Your task to perform on an android device: toggle translation in the chrome app Image 0: 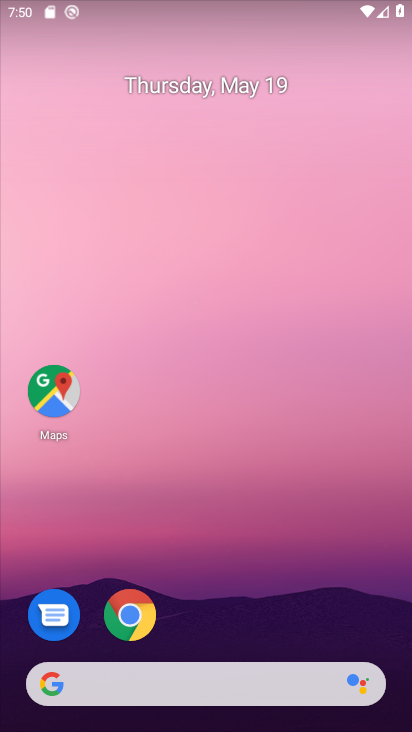
Step 0: drag from (235, 605) to (143, 83)
Your task to perform on an android device: toggle translation in the chrome app Image 1: 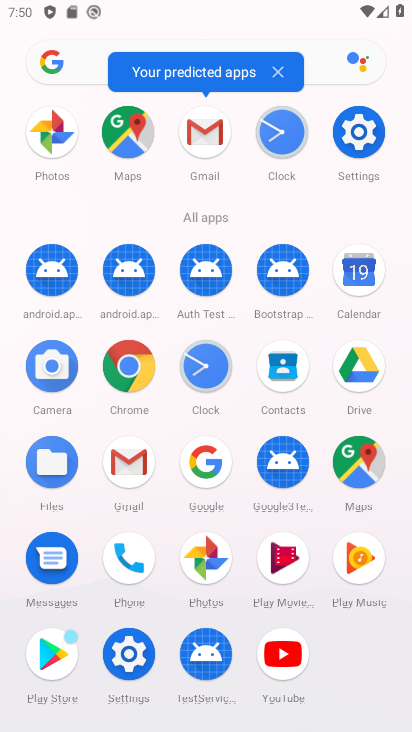
Step 1: click (131, 385)
Your task to perform on an android device: toggle translation in the chrome app Image 2: 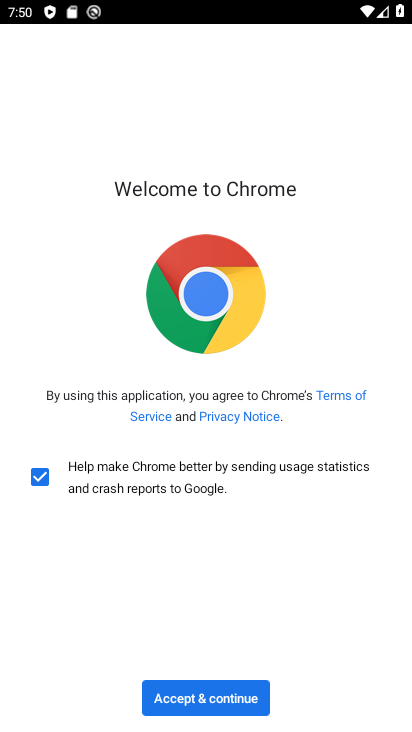
Step 2: click (205, 694)
Your task to perform on an android device: toggle translation in the chrome app Image 3: 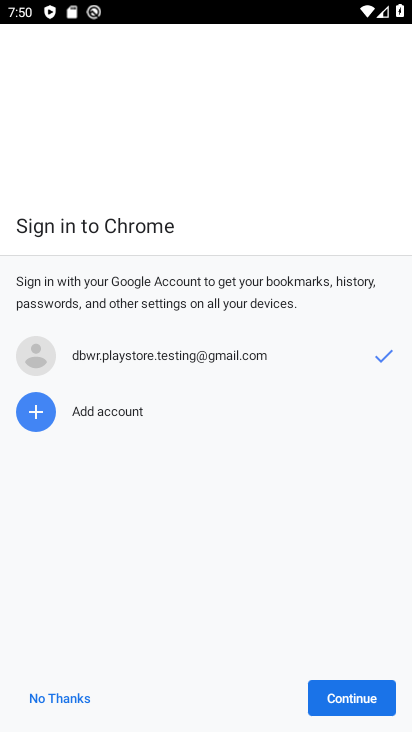
Step 3: click (68, 693)
Your task to perform on an android device: toggle translation in the chrome app Image 4: 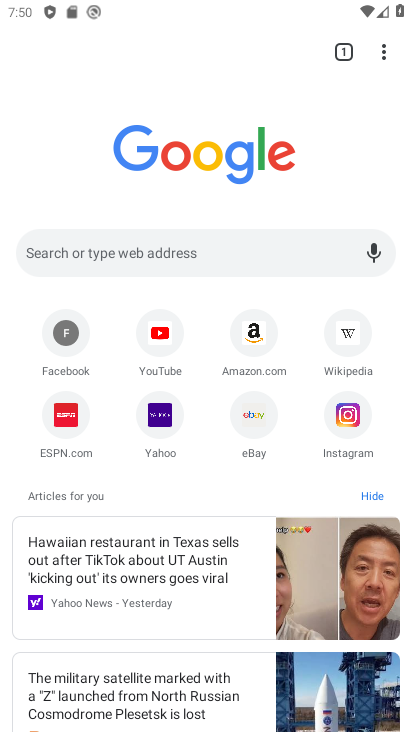
Step 4: click (381, 60)
Your task to perform on an android device: toggle translation in the chrome app Image 5: 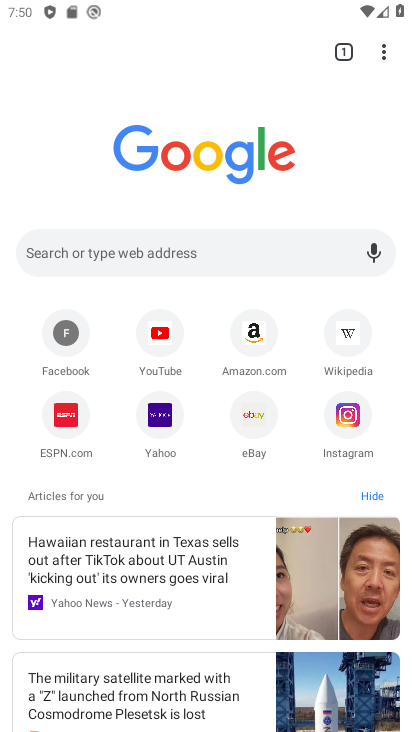
Step 5: drag from (381, 60) to (271, 445)
Your task to perform on an android device: toggle translation in the chrome app Image 6: 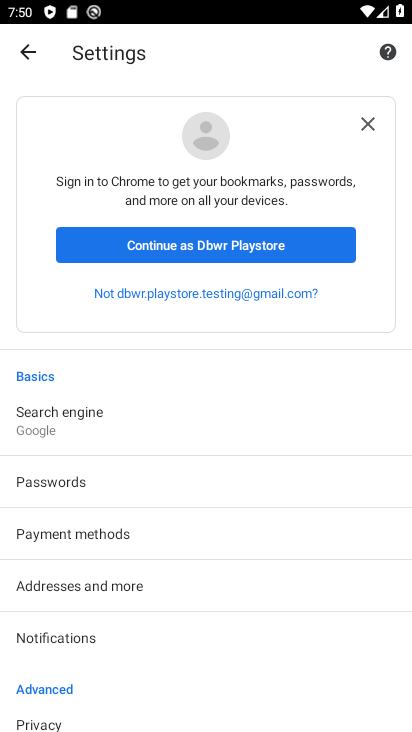
Step 6: drag from (171, 664) to (99, 297)
Your task to perform on an android device: toggle translation in the chrome app Image 7: 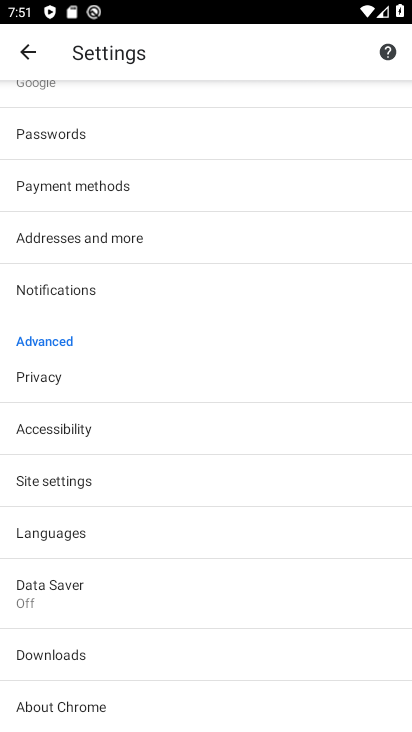
Step 7: drag from (140, 597) to (55, 250)
Your task to perform on an android device: toggle translation in the chrome app Image 8: 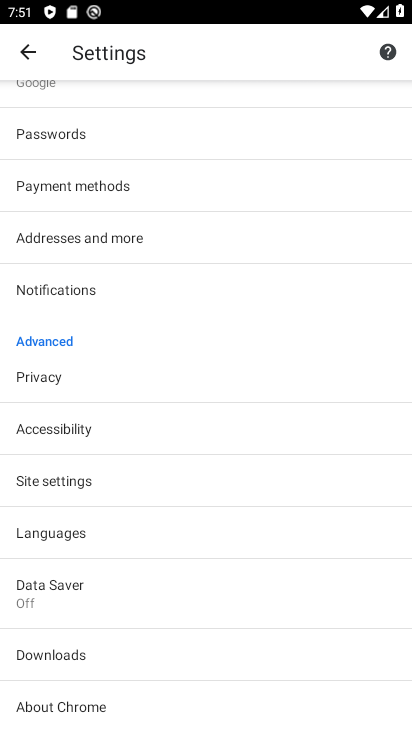
Step 8: click (55, 538)
Your task to perform on an android device: toggle translation in the chrome app Image 9: 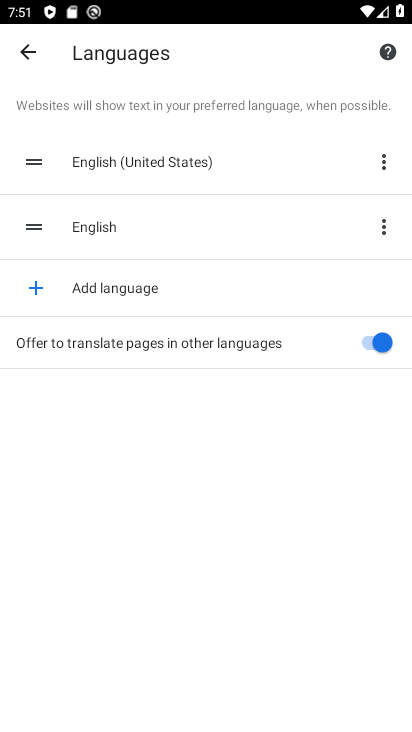
Step 9: click (377, 342)
Your task to perform on an android device: toggle translation in the chrome app Image 10: 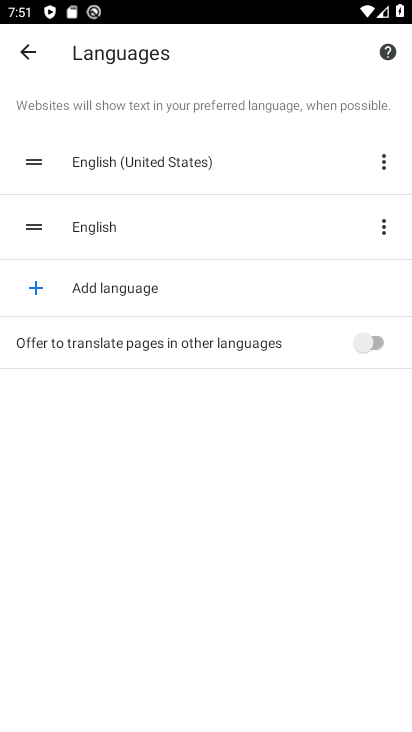
Step 10: task complete